Your task to perform on an android device: What is the recent news? Image 0: 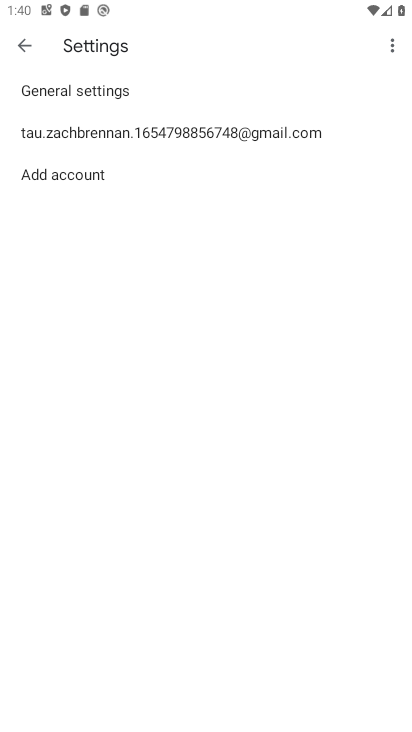
Step 0: press home button
Your task to perform on an android device: What is the recent news? Image 1: 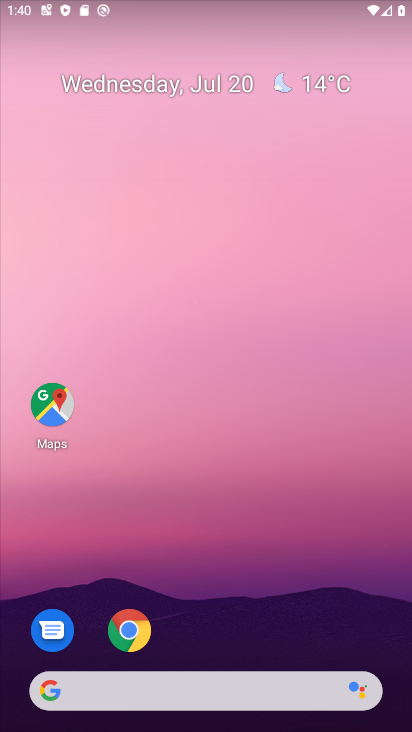
Step 1: click (171, 695)
Your task to perform on an android device: What is the recent news? Image 2: 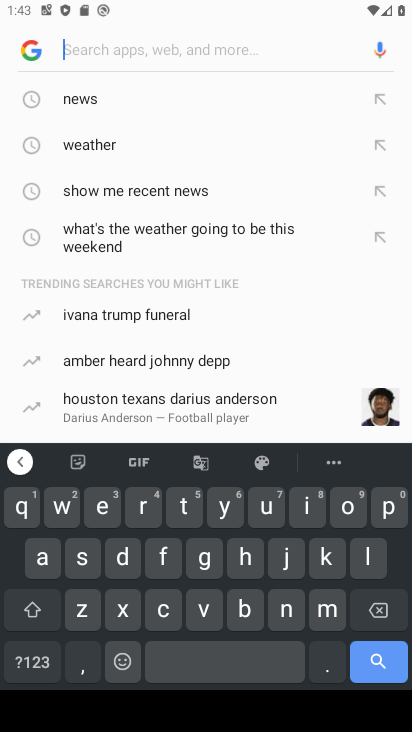
Step 2: click (131, 504)
Your task to perform on an android device: What is the recent news? Image 3: 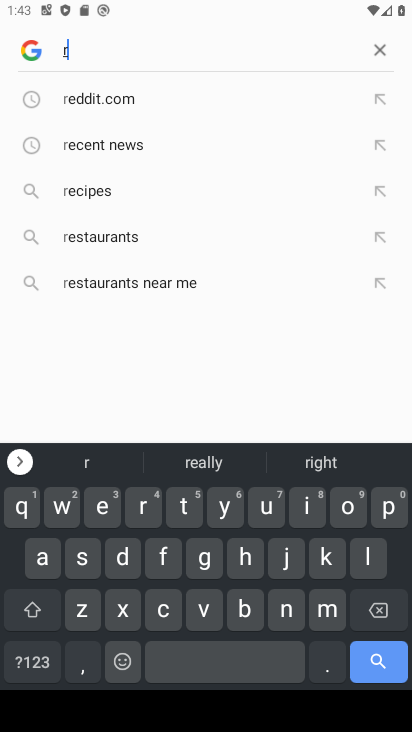
Step 3: click (113, 152)
Your task to perform on an android device: What is the recent news? Image 4: 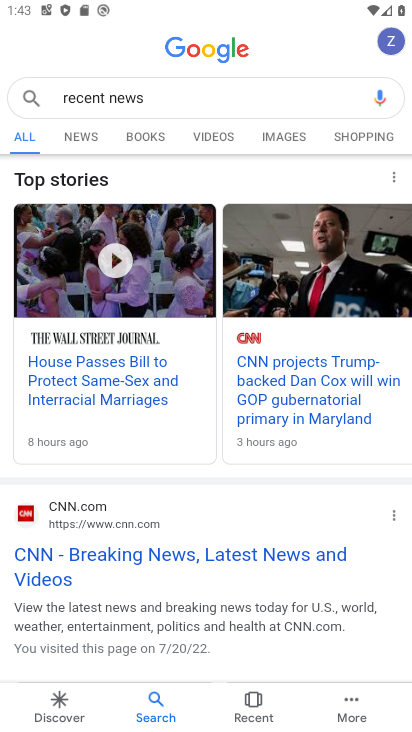
Step 4: task complete